Your task to perform on an android device: install app "Google Play Games" Image 0: 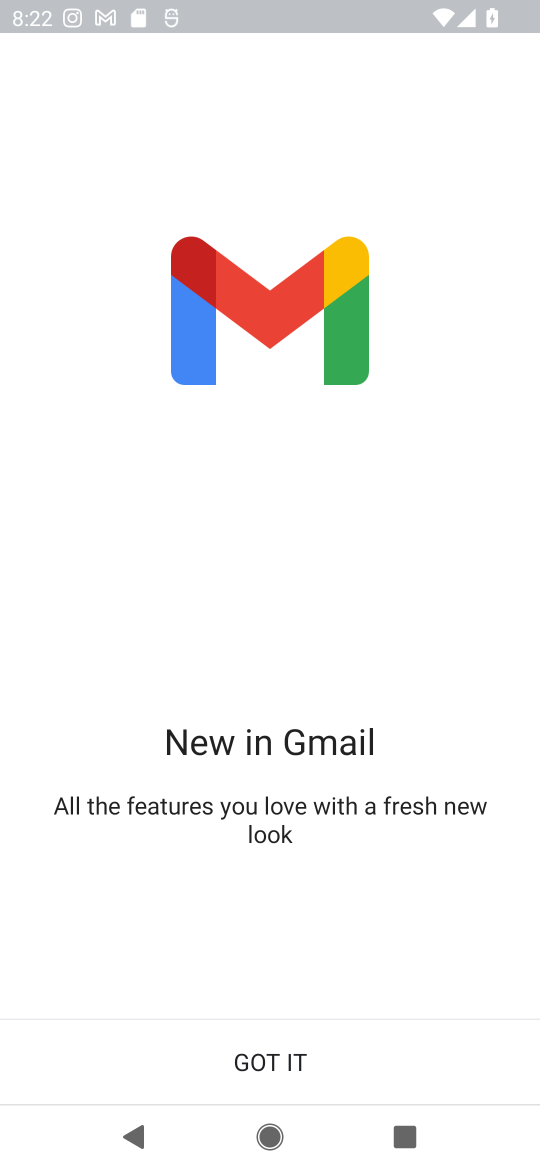
Step 0: press home button
Your task to perform on an android device: install app "Google Play Games" Image 1: 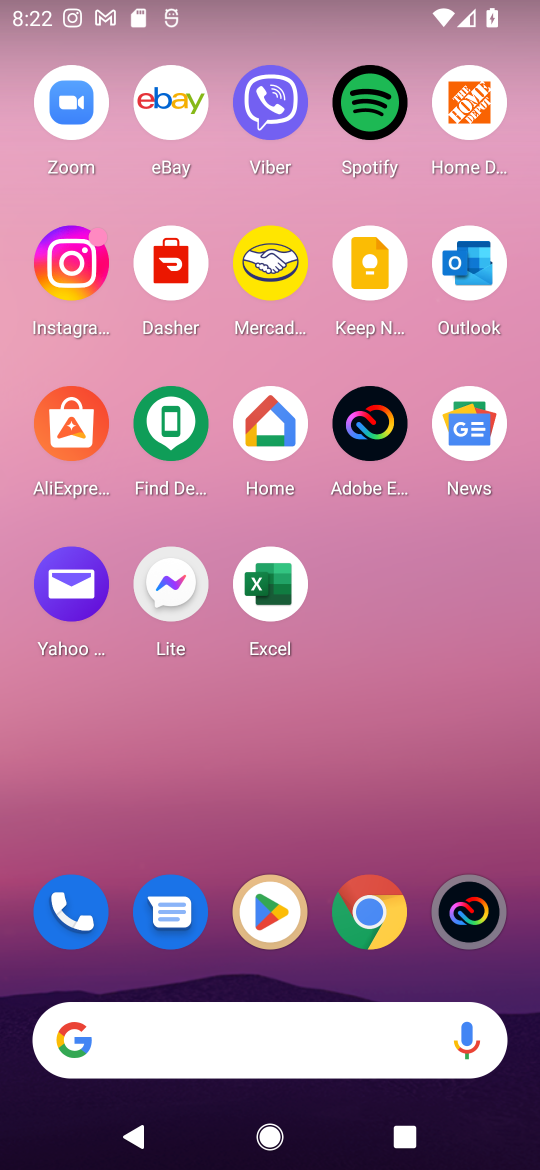
Step 1: click (280, 915)
Your task to perform on an android device: install app "Google Play Games" Image 2: 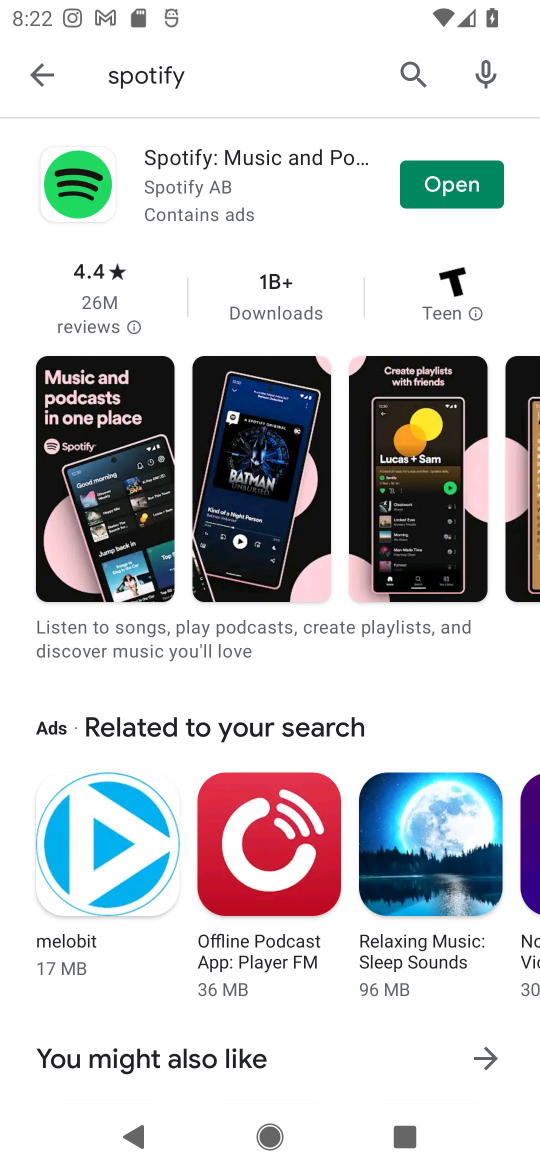
Step 2: click (410, 61)
Your task to perform on an android device: install app "Google Play Games" Image 3: 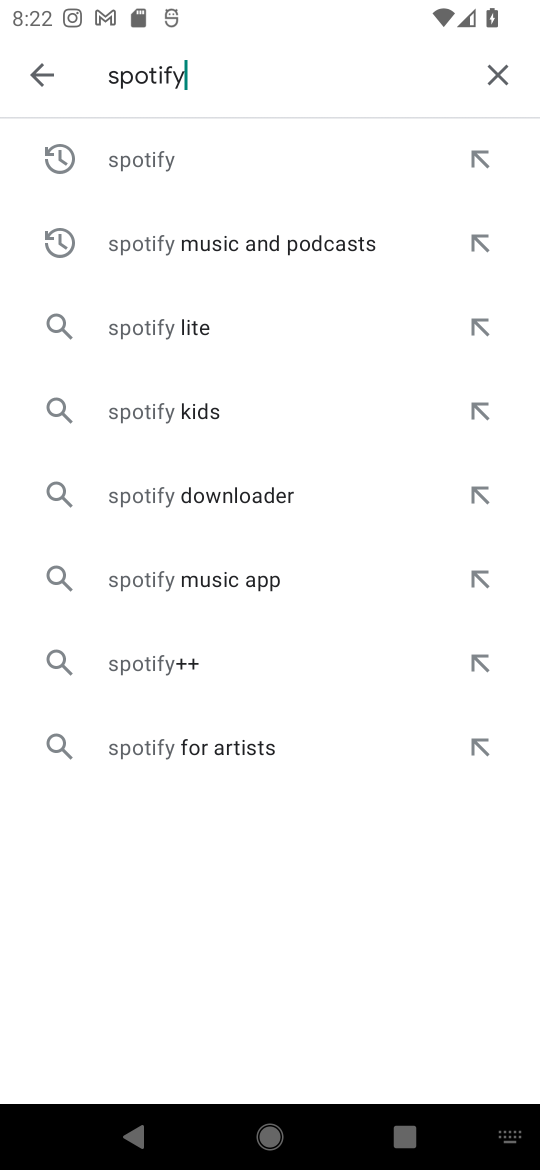
Step 3: click (500, 70)
Your task to perform on an android device: install app "Google Play Games" Image 4: 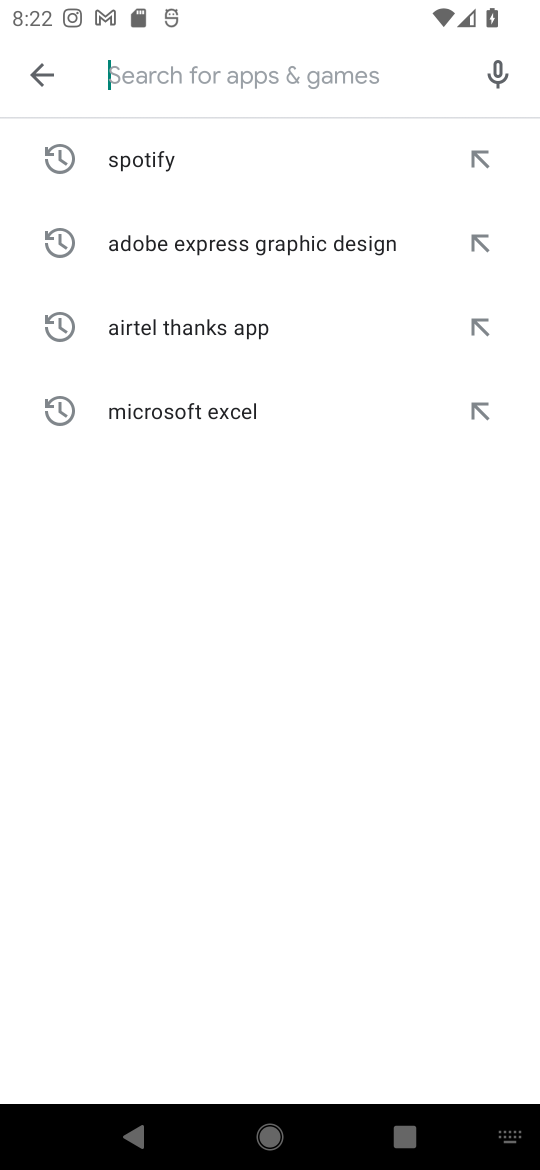
Step 4: type "Google Play Games"
Your task to perform on an android device: install app "Google Play Games" Image 5: 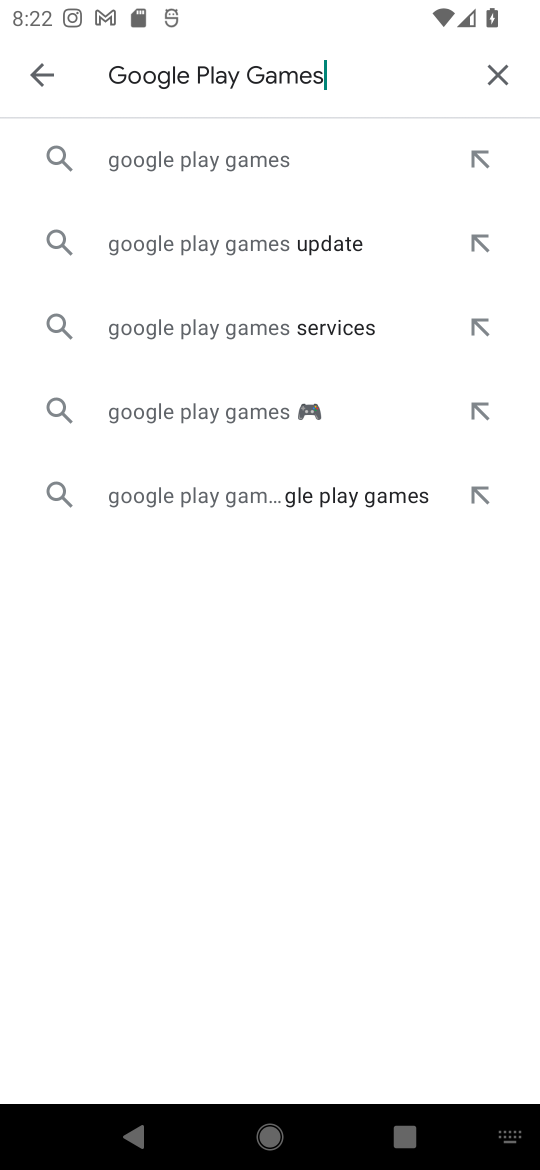
Step 5: click (188, 155)
Your task to perform on an android device: install app "Google Play Games" Image 6: 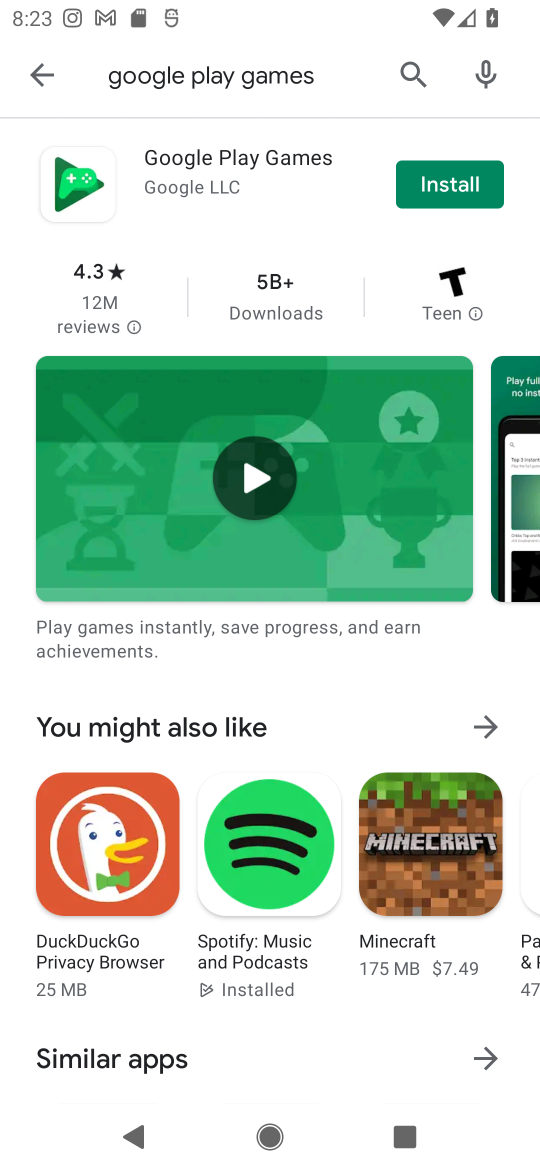
Step 6: click (447, 186)
Your task to perform on an android device: install app "Google Play Games" Image 7: 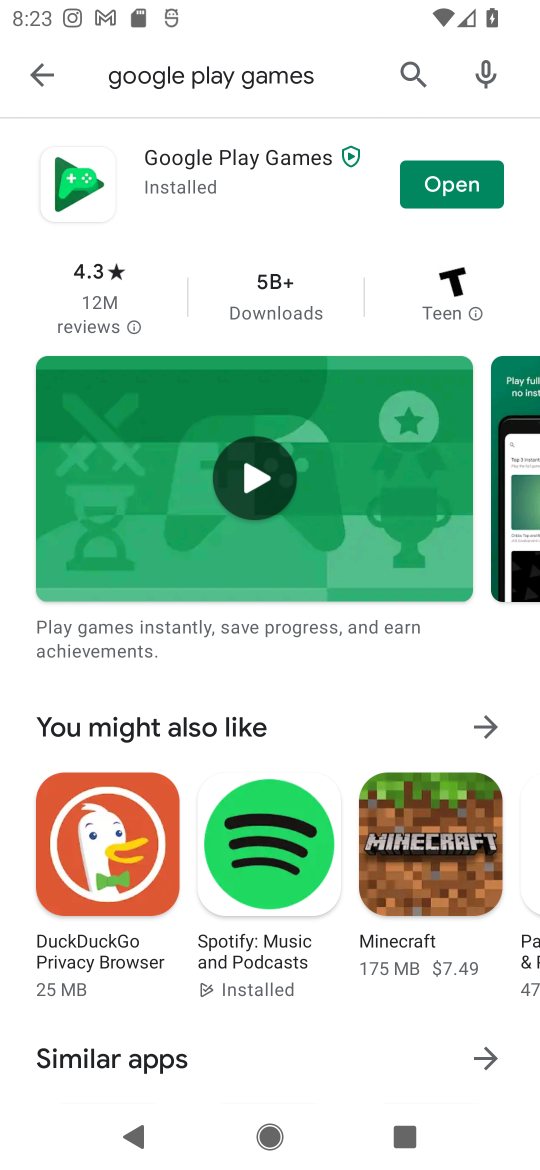
Step 7: task complete